Your task to perform on an android device: delete the emails in spam in the gmail app Image 0: 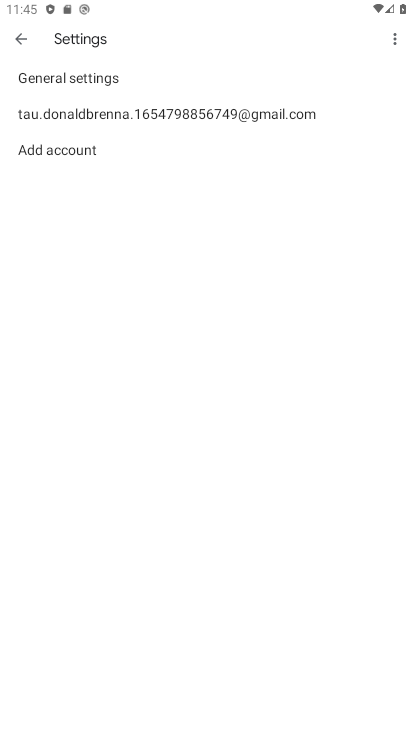
Step 0: press home button
Your task to perform on an android device: delete the emails in spam in the gmail app Image 1: 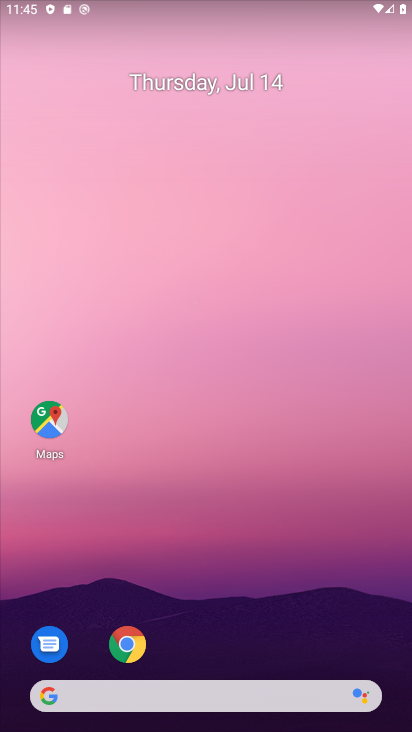
Step 1: drag from (247, 673) to (269, 17)
Your task to perform on an android device: delete the emails in spam in the gmail app Image 2: 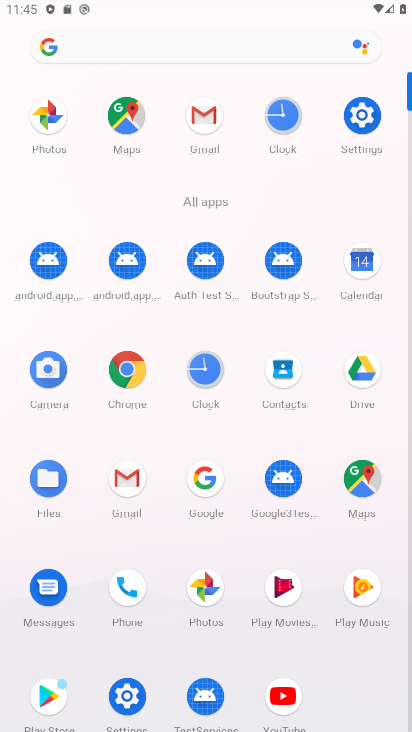
Step 2: click (120, 491)
Your task to perform on an android device: delete the emails in spam in the gmail app Image 3: 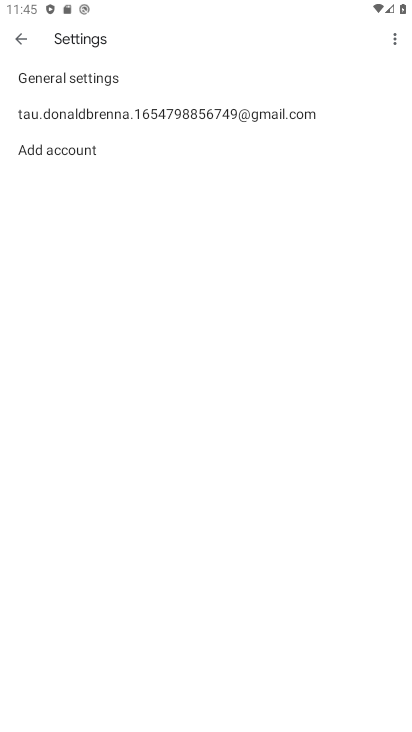
Step 3: click (20, 42)
Your task to perform on an android device: delete the emails in spam in the gmail app Image 4: 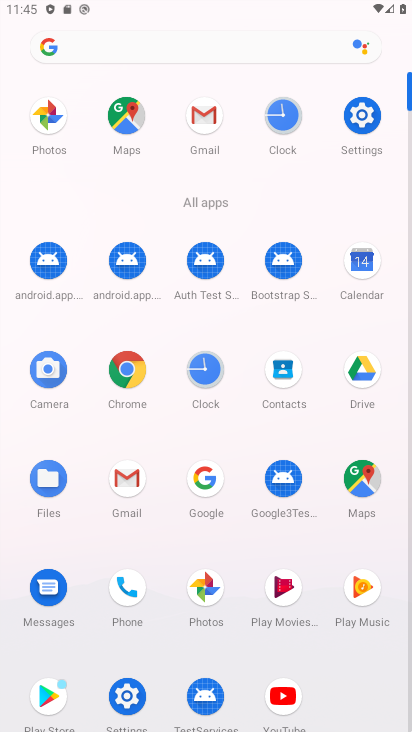
Step 4: click (213, 113)
Your task to perform on an android device: delete the emails in spam in the gmail app Image 5: 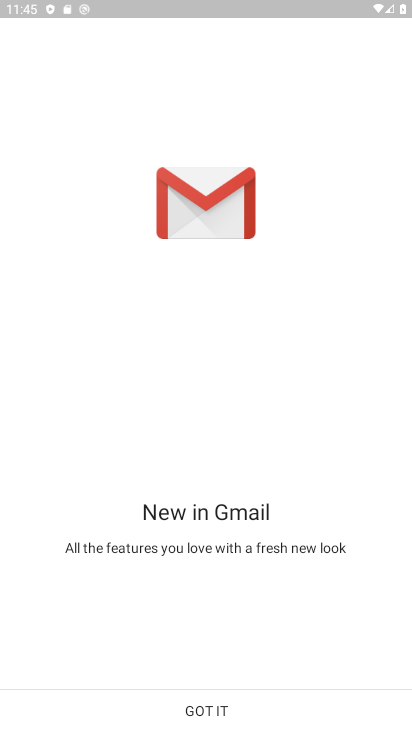
Step 5: click (188, 709)
Your task to perform on an android device: delete the emails in spam in the gmail app Image 6: 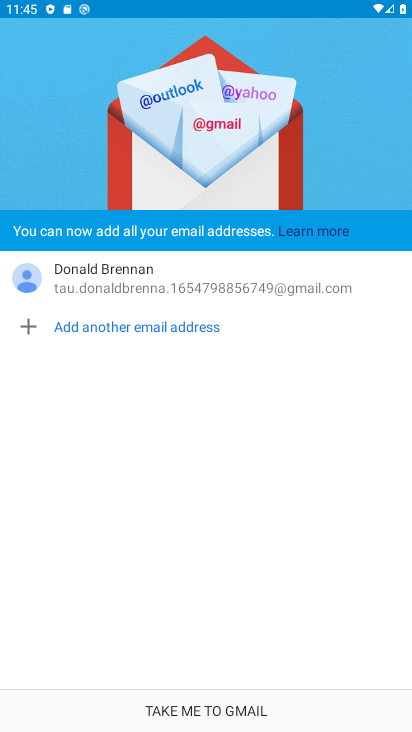
Step 6: click (188, 709)
Your task to perform on an android device: delete the emails in spam in the gmail app Image 7: 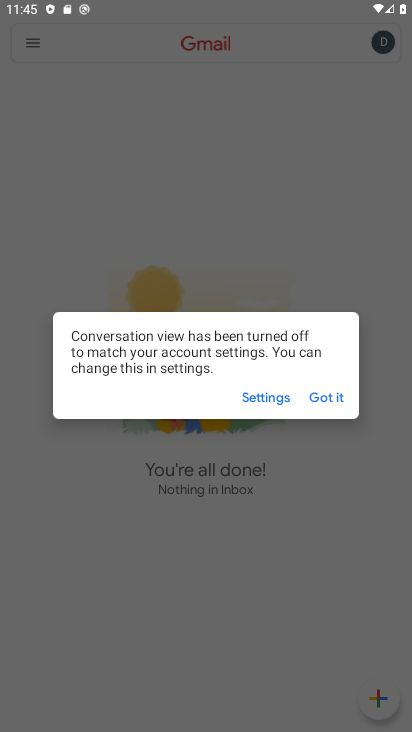
Step 7: click (318, 396)
Your task to perform on an android device: delete the emails in spam in the gmail app Image 8: 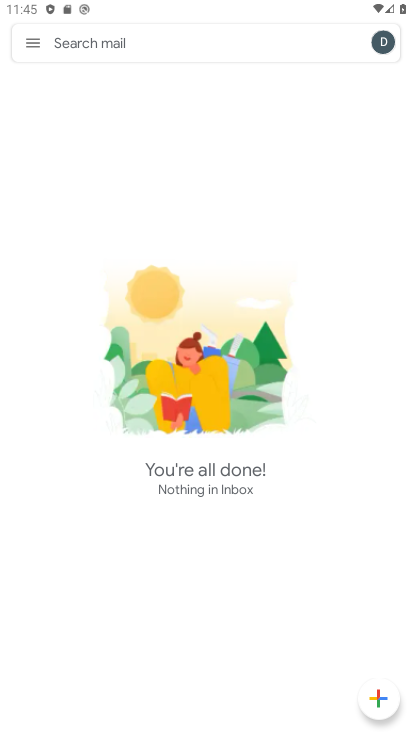
Step 8: drag from (248, 177) to (173, 567)
Your task to perform on an android device: delete the emails in spam in the gmail app Image 9: 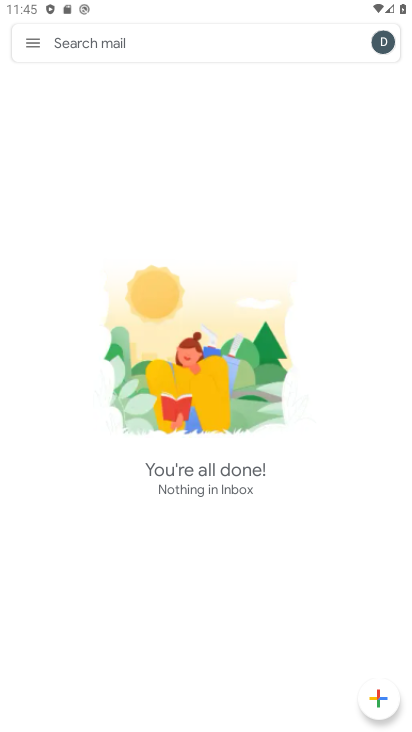
Step 9: click (31, 36)
Your task to perform on an android device: delete the emails in spam in the gmail app Image 10: 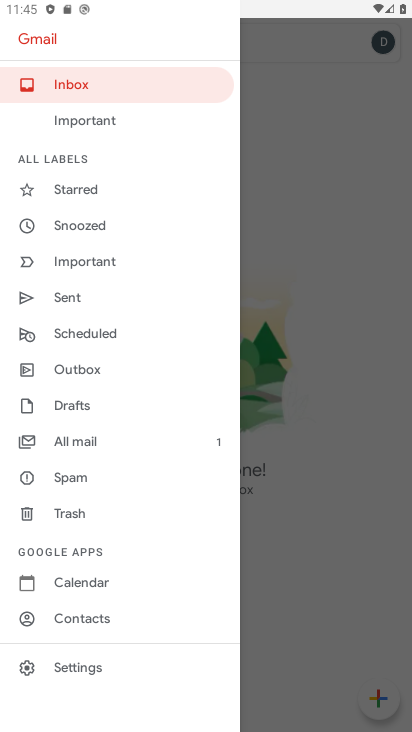
Step 10: click (42, 477)
Your task to perform on an android device: delete the emails in spam in the gmail app Image 11: 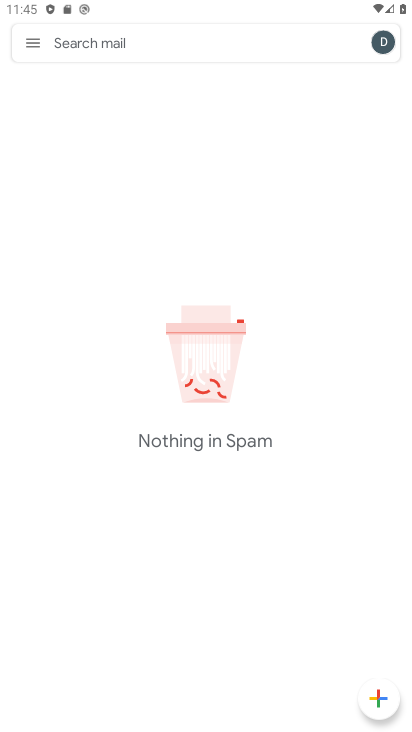
Step 11: task complete